Your task to perform on an android device: Do I have any events tomorrow? Image 0: 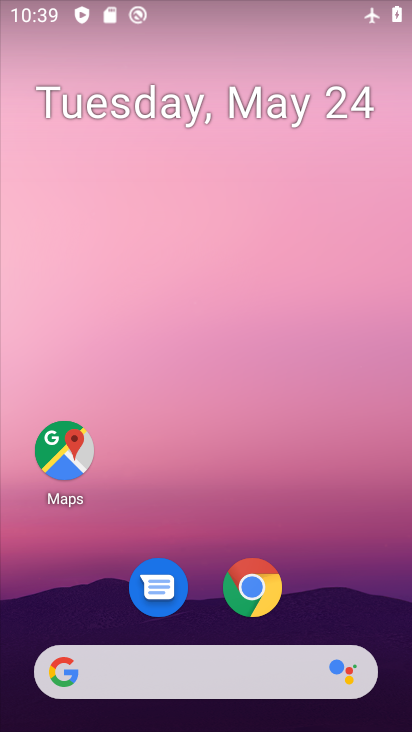
Step 0: drag from (319, 526) to (171, 36)
Your task to perform on an android device: Do I have any events tomorrow? Image 1: 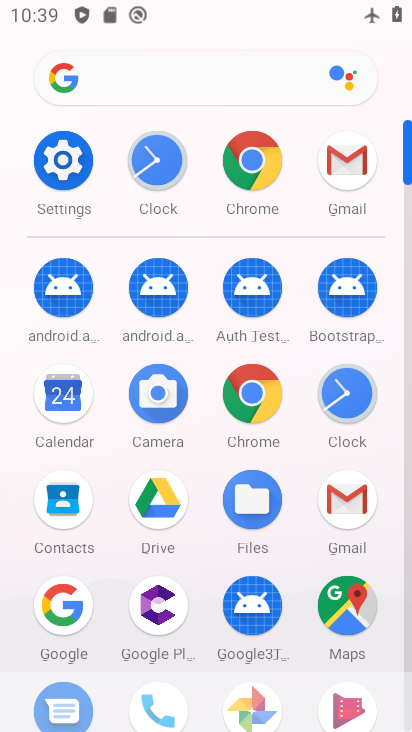
Step 1: click (70, 420)
Your task to perform on an android device: Do I have any events tomorrow? Image 2: 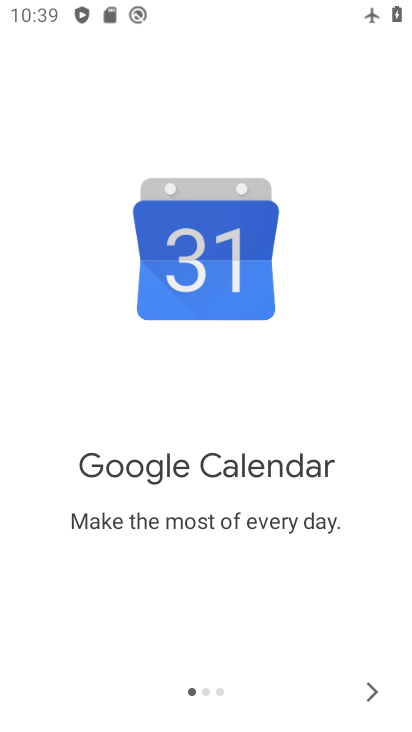
Step 2: click (363, 699)
Your task to perform on an android device: Do I have any events tomorrow? Image 3: 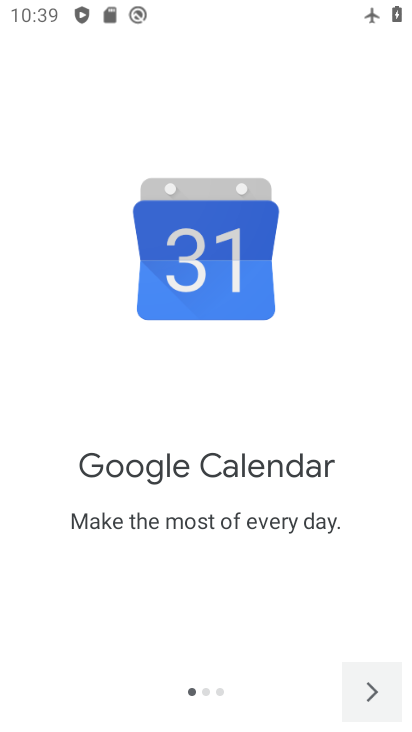
Step 3: click (363, 699)
Your task to perform on an android device: Do I have any events tomorrow? Image 4: 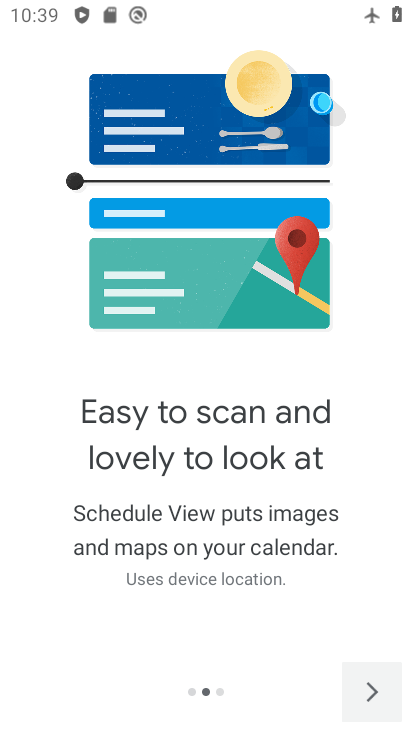
Step 4: click (363, 699)
Your task to perform on an android device: Do I have any events tomorrow? Image 5: 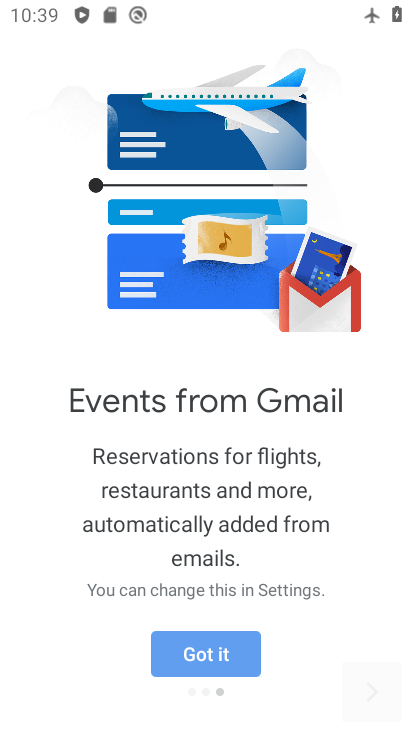
Step 5: click (363, 699)
Your task to perform on an android device: Do I have any events tomorrow? Image 6: 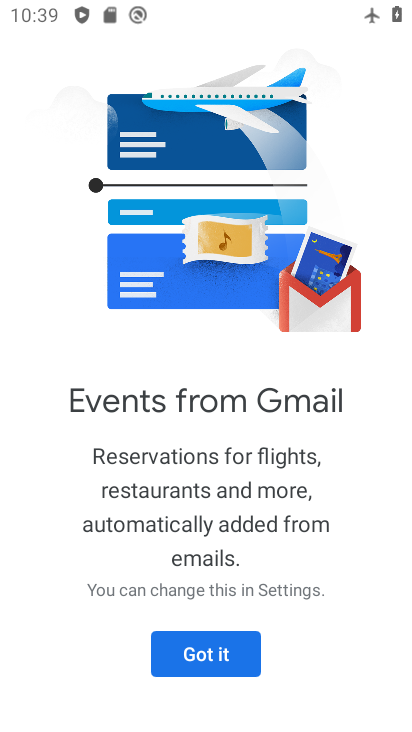
Step 6: click (255, 665)
Your task to perform on an android device: Do I have any events tomorrow? Image 7: 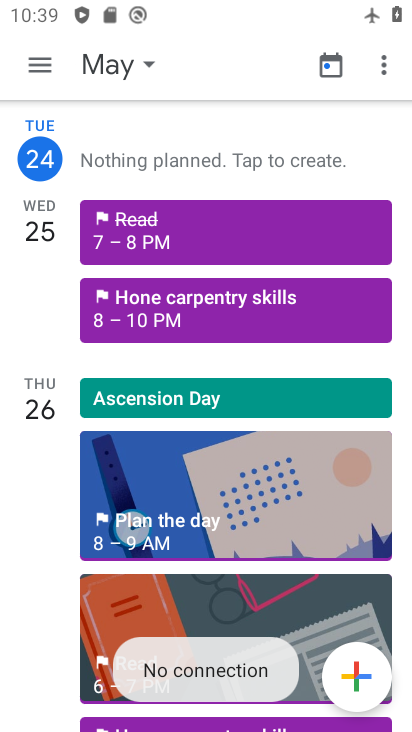
Step 7: click (109, 80)
Your task to perform on an android device: Do I have any events tomorrow? Image 8: 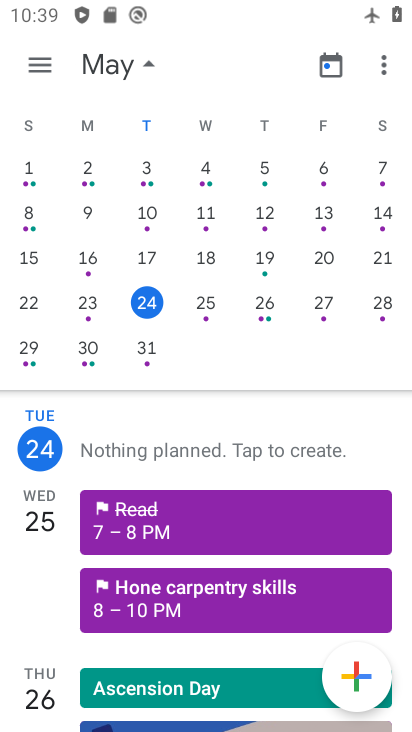
Step 8: click (250, 314)
Your task to perform on an android device: Do I have any events tomorrow? Image 9: 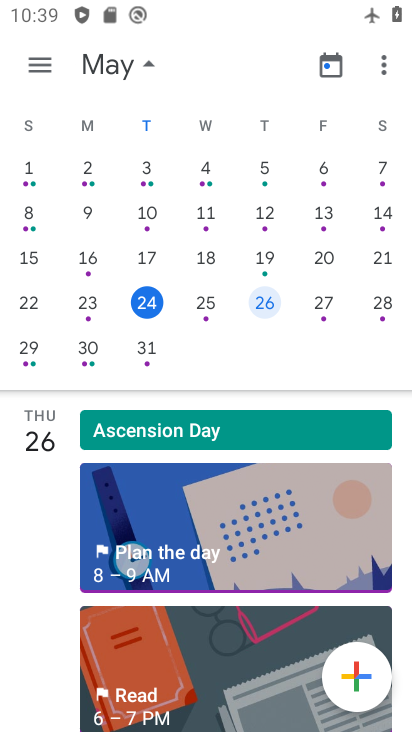
Step 9: click (153, 73)
Your task to perform on an android device: Do I have any events tomorrow? Image 10: 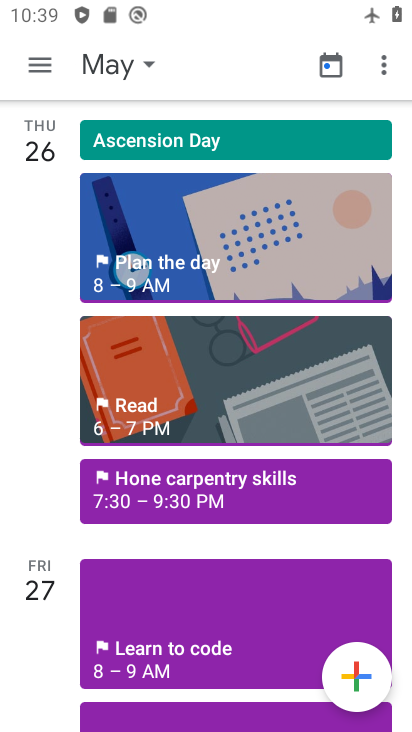
Step 10: task complete